Your task to perform on an android device: Search for nike dri-fit shirts on Nike Image 0: 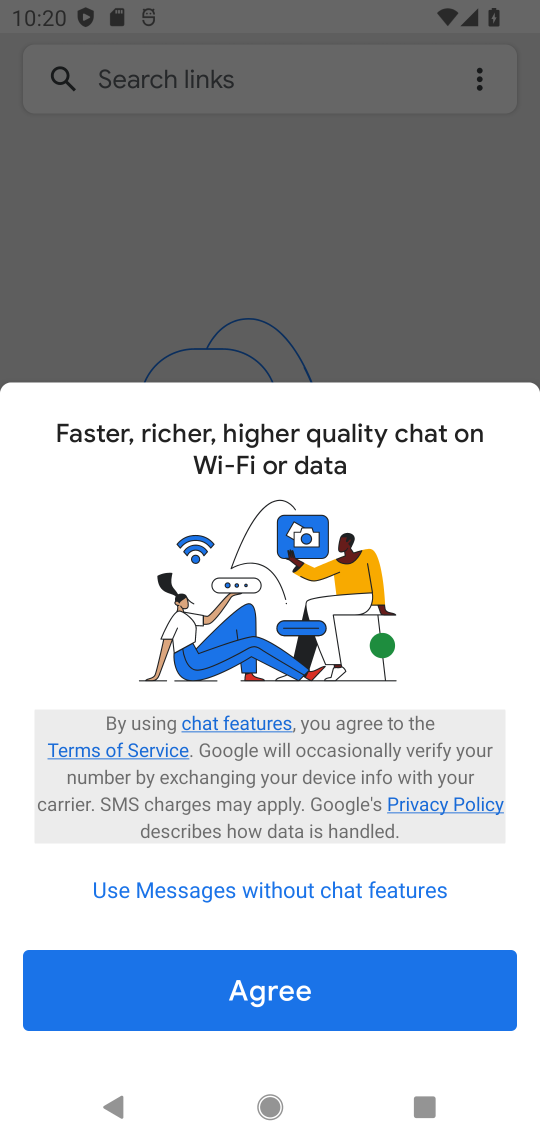
Step 0: press home button
Your task to perform on an android device: Search for nike dri-fit shirts on Nike Image 1: 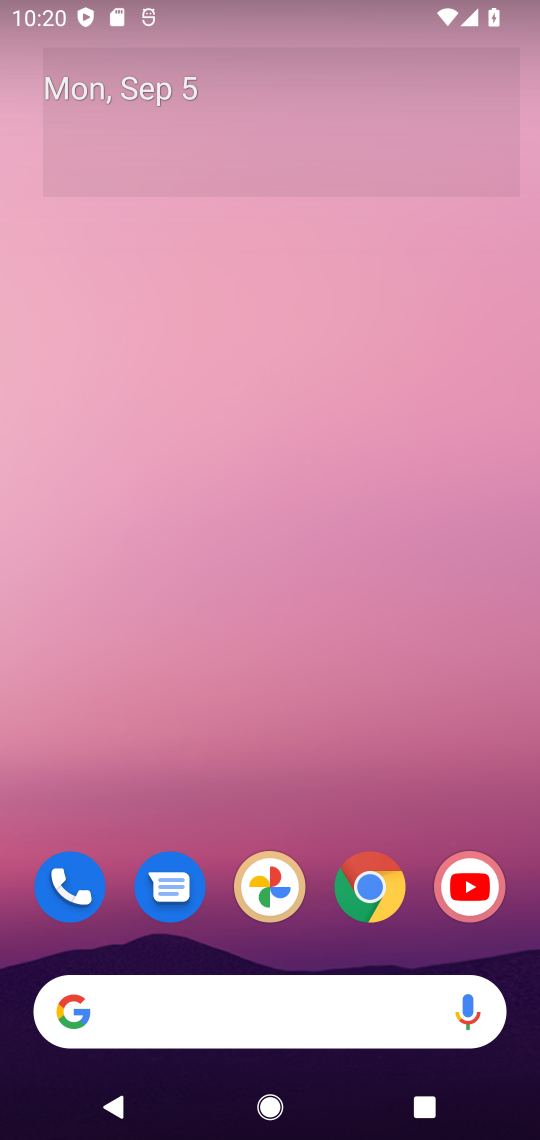
Step 1: click (381, 883)
Your task to perform on an android device: Search for nike dri-fit shirts on Nike Image 2: 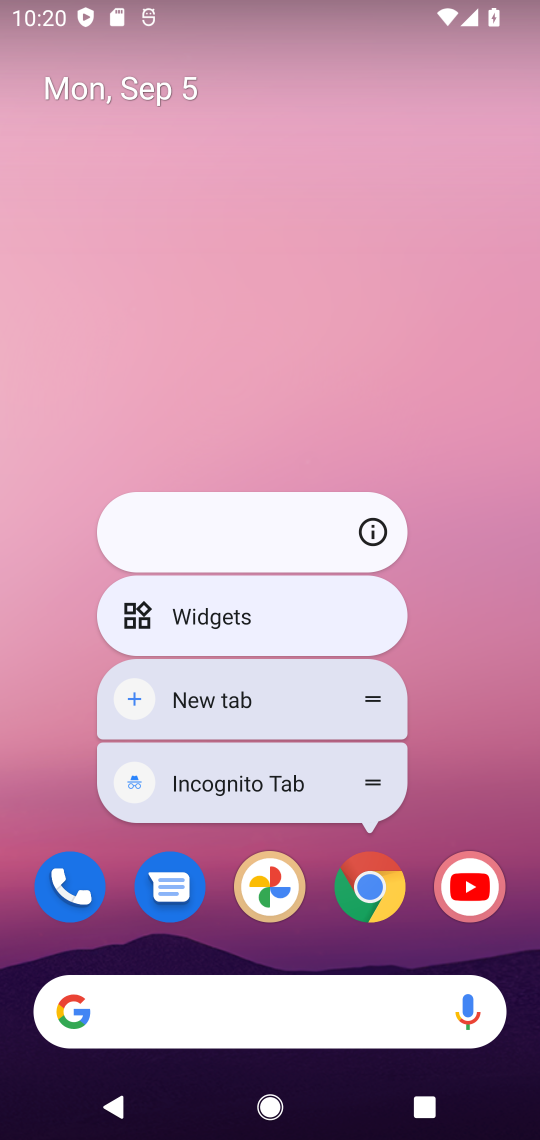
Step 2: click (381, 884)
Your task to perform on an android device: Search for nike dri-fit shirts on Nike Image 3: 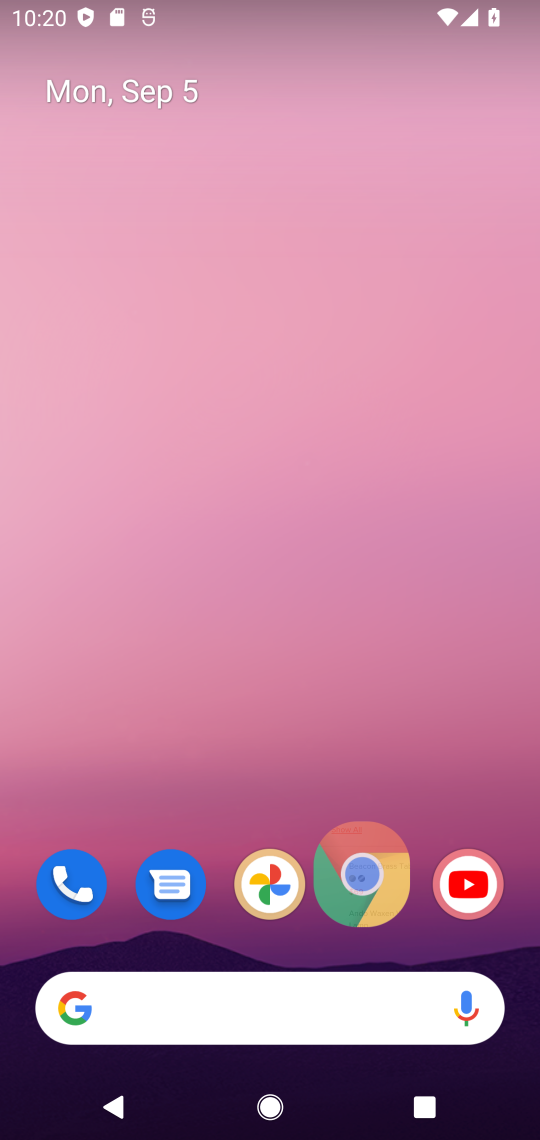
Step 3: click (381, 884)
Your task to perform on an android device: Search for nike dri-fit shirts on Nike Image 4: 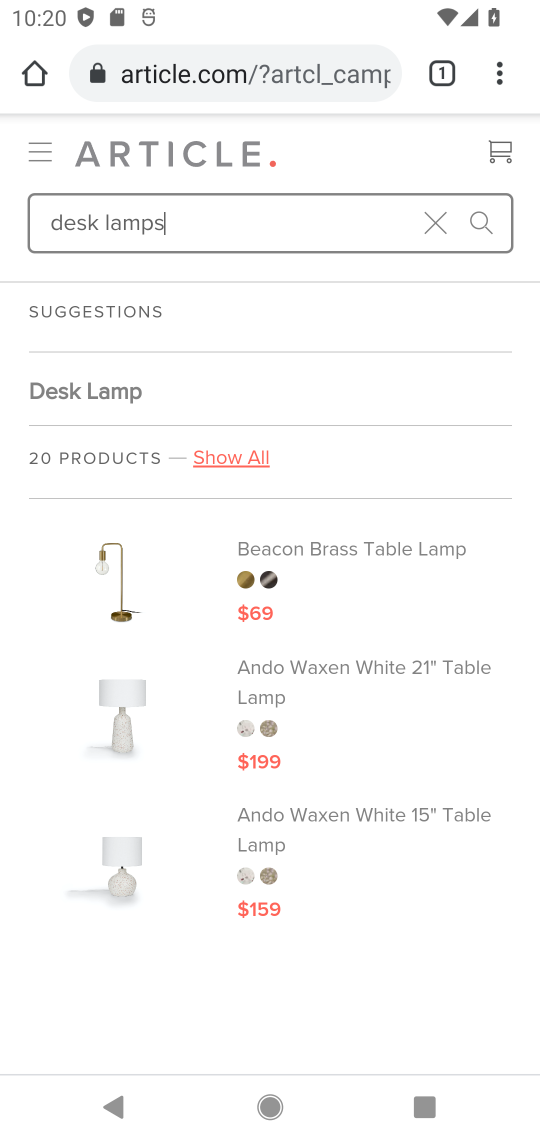
Step 4: click (187, 78)
Your task to perform on an android device: Search for nike dri-fit shirts on Nike Image 5: 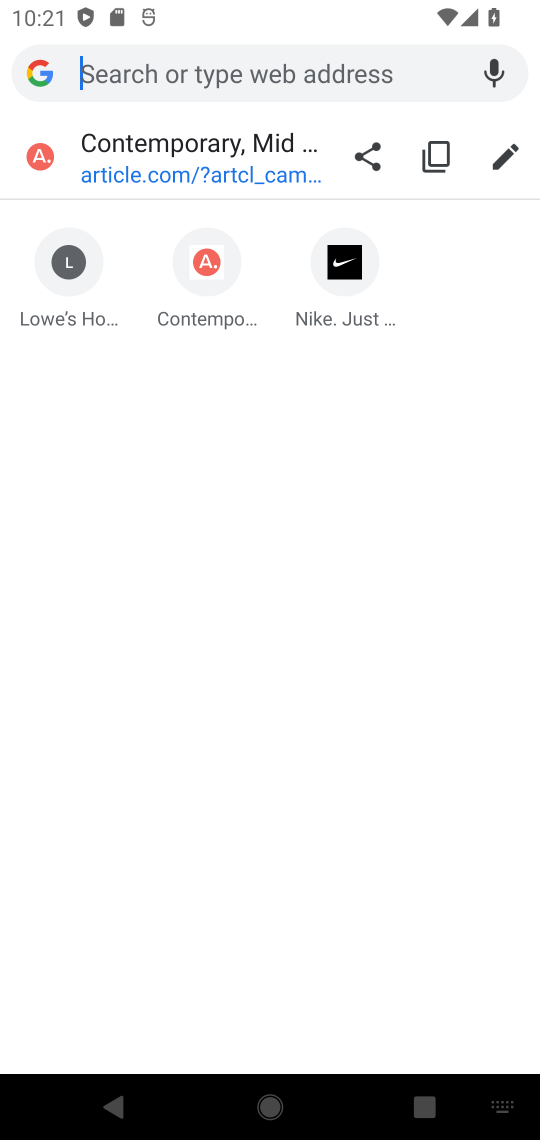
Step 5: type "Nike"
Your task to perform on an android device: Search for nike dri-fit shirts on Nike Image 6: 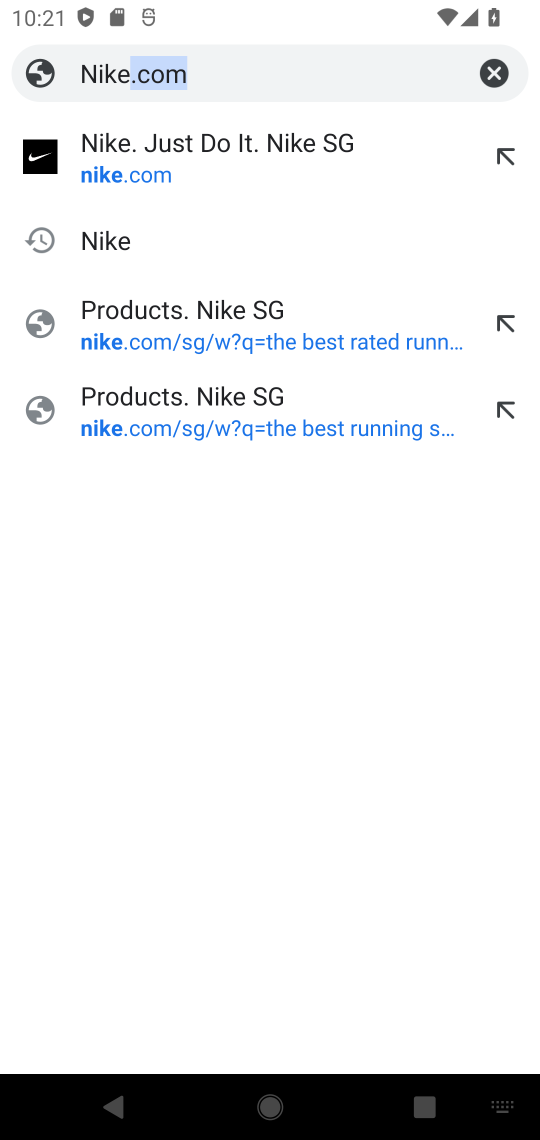
Step 6: click (161, 236)
Your task to perform on an android device: Search for nike dri-fit shirts on Nike Image 7: 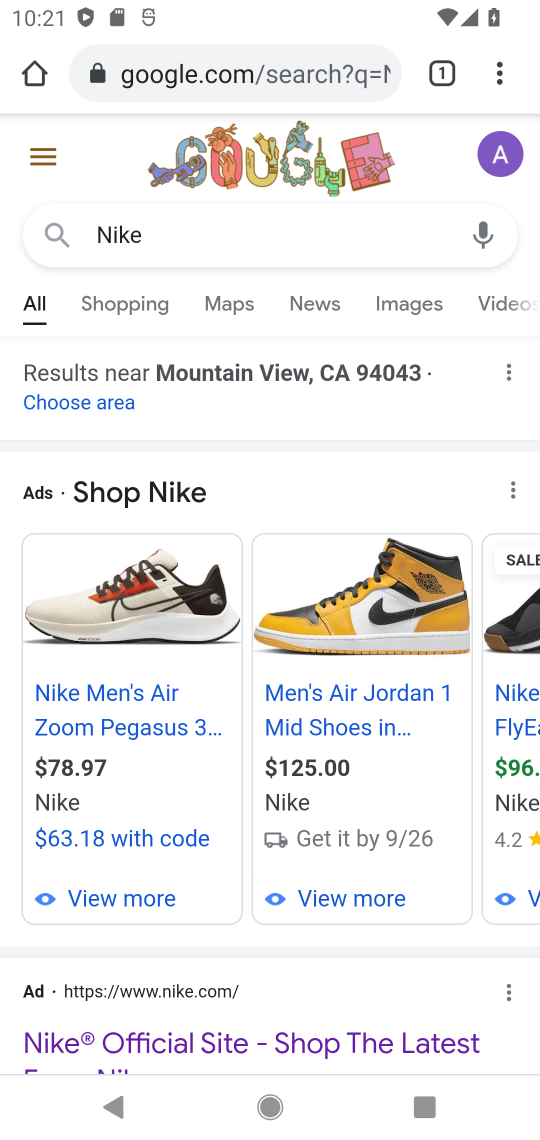
Step 7: drag from (212, 1010) to (186, 490)
Your task to perform on an android device: Search for nike dri-fit shirts on Nike Image 8: 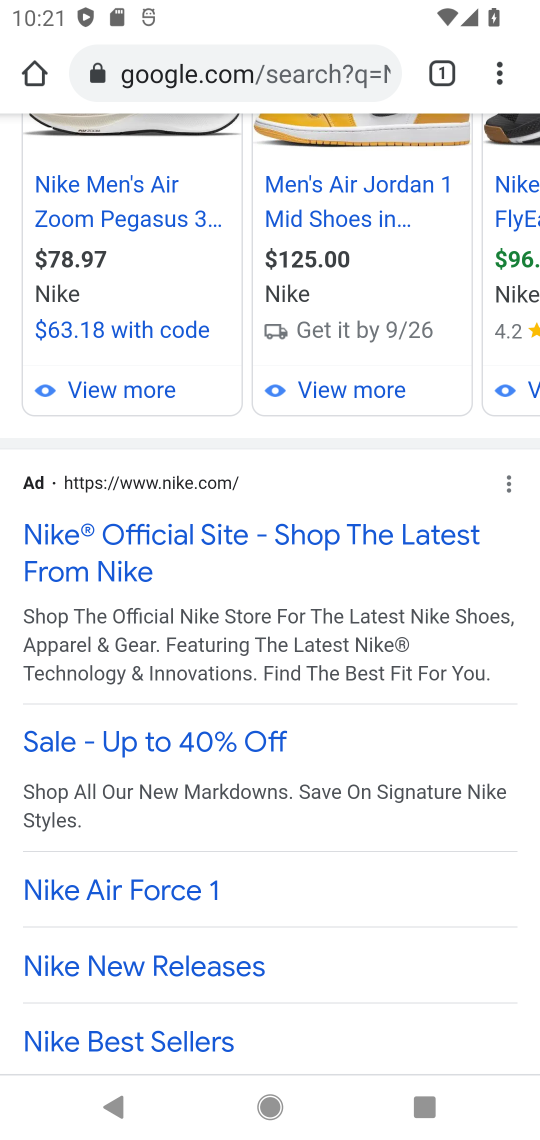
Step 8: click (176, 538)
Your task to perform on an android device: Search for nike dri-fit shirts on Nike Image 9: 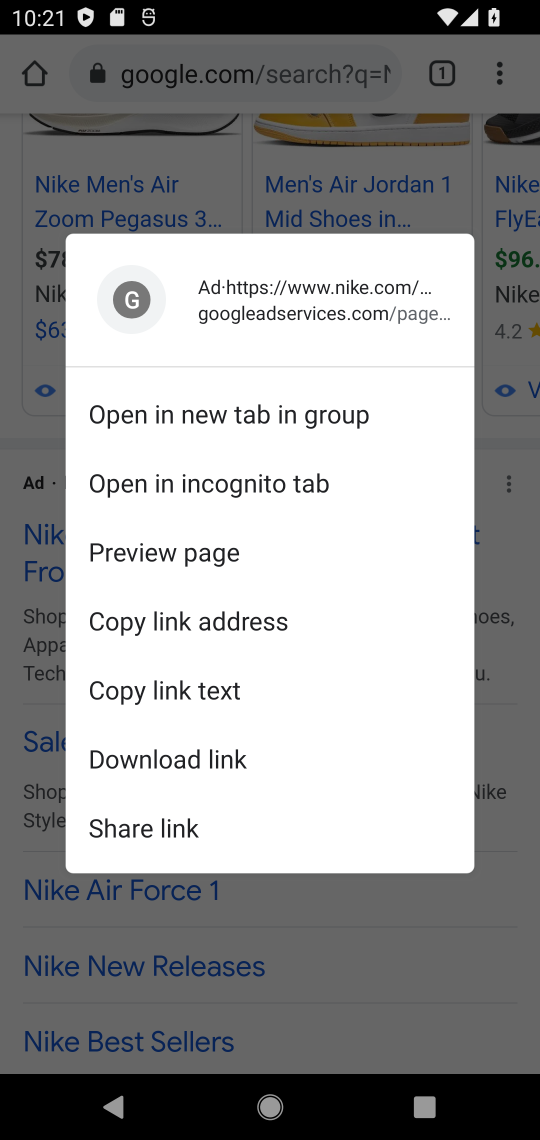
Step 9: click (33, 578)
Your task to perform on an android device: Search for nike dri-fit shirts on Nike Image 10: 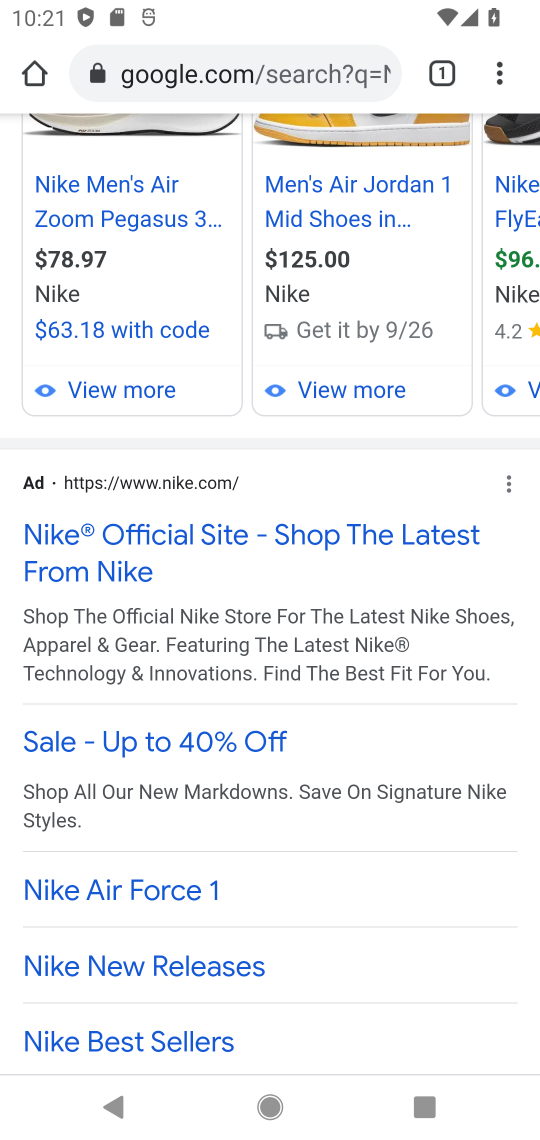
Step 10: click (76, 560)
Your task to perform on an android device: Search for nike dri-fit shirts on Nike Image 11: 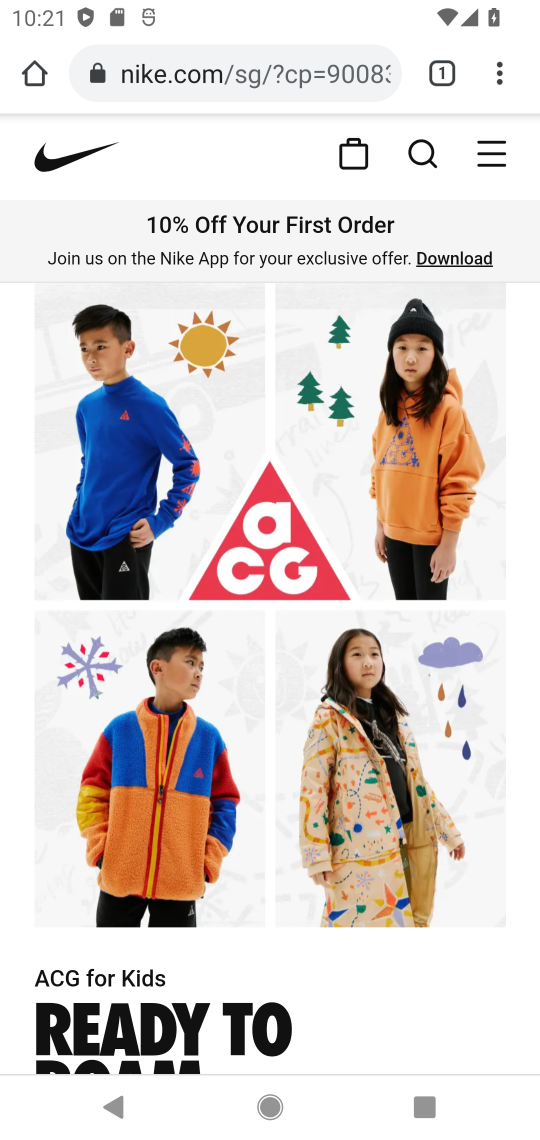
Step 11: click (415, 149)
Your task to perform on an android device: Search for nike dri-fit shirts on Nike Image 12: 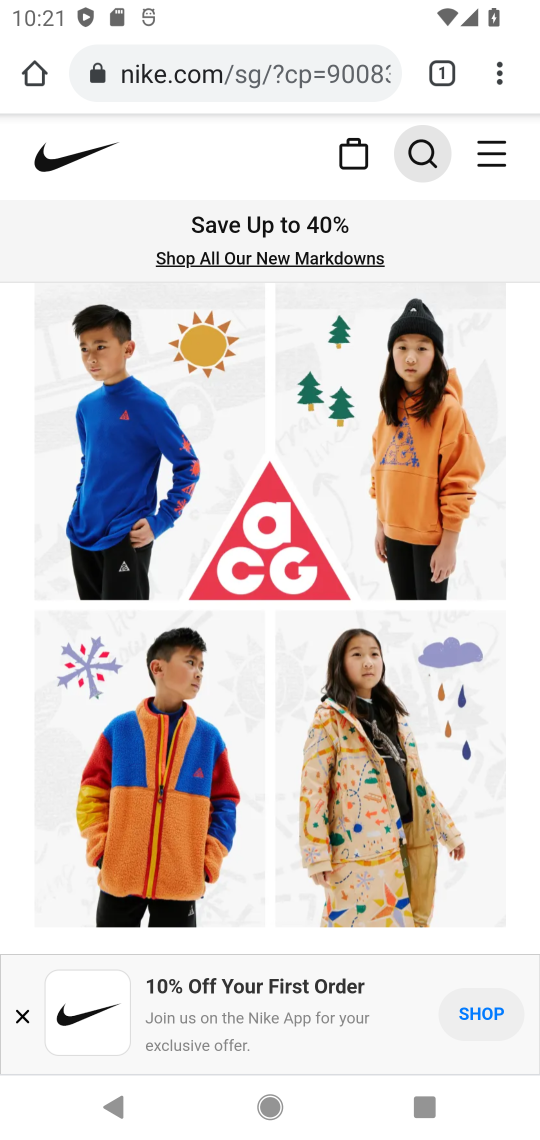
Step 12: click (431, 156)
Your task to perform on an android device: Search for nike dri-fit shirts on Nike Image 13: 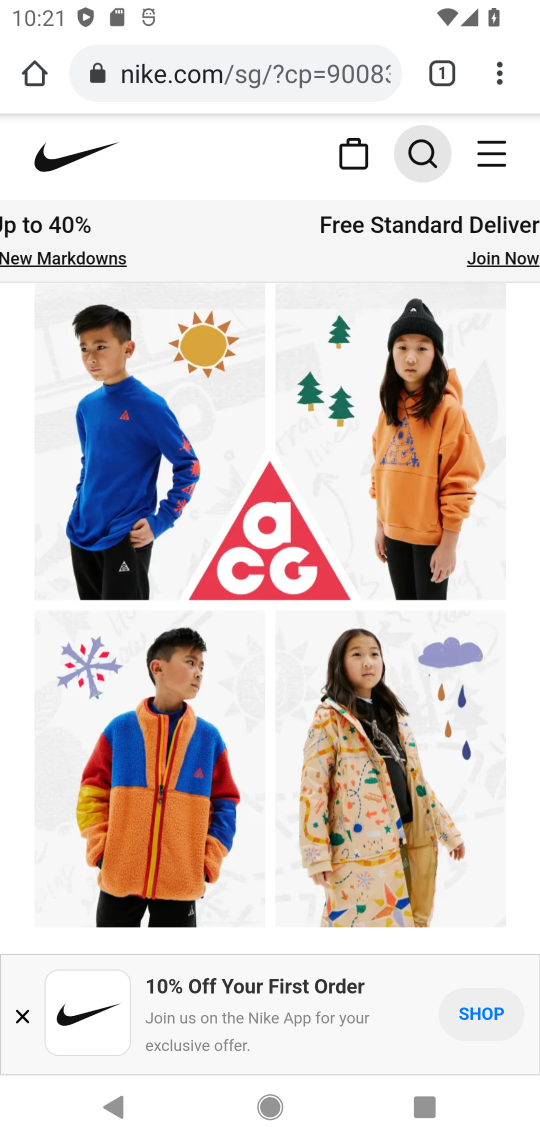
Step 13: click (431, 153)
Your task to perform on an android device: Search for nike dri-fit shirts on Nike Image 14: 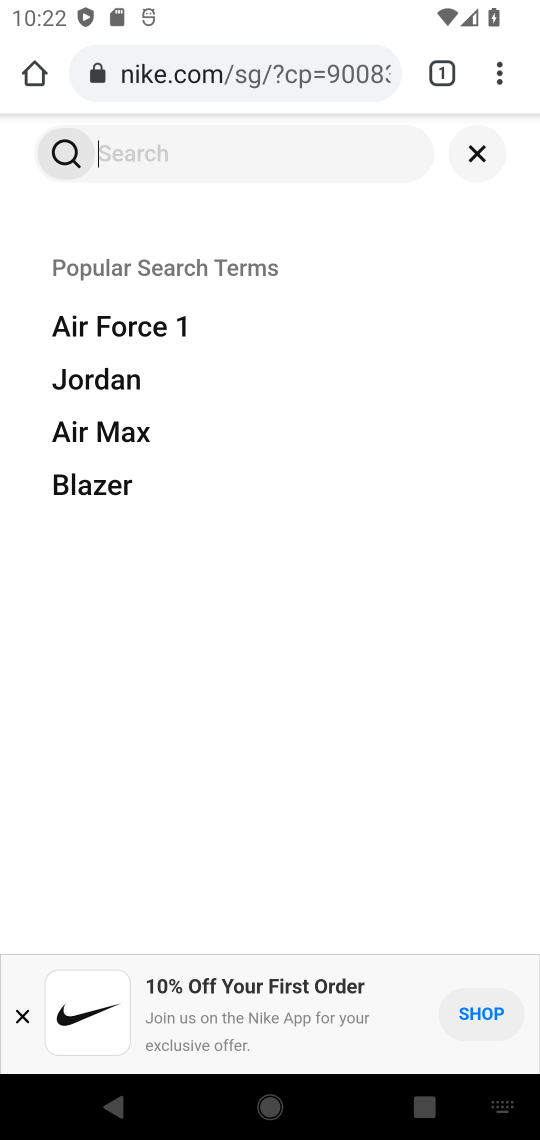
Step 14: type " nike dri-fit shirts"
Your task to perform on an android device: Search for nike dri-fit shirts on Nike Image 15: 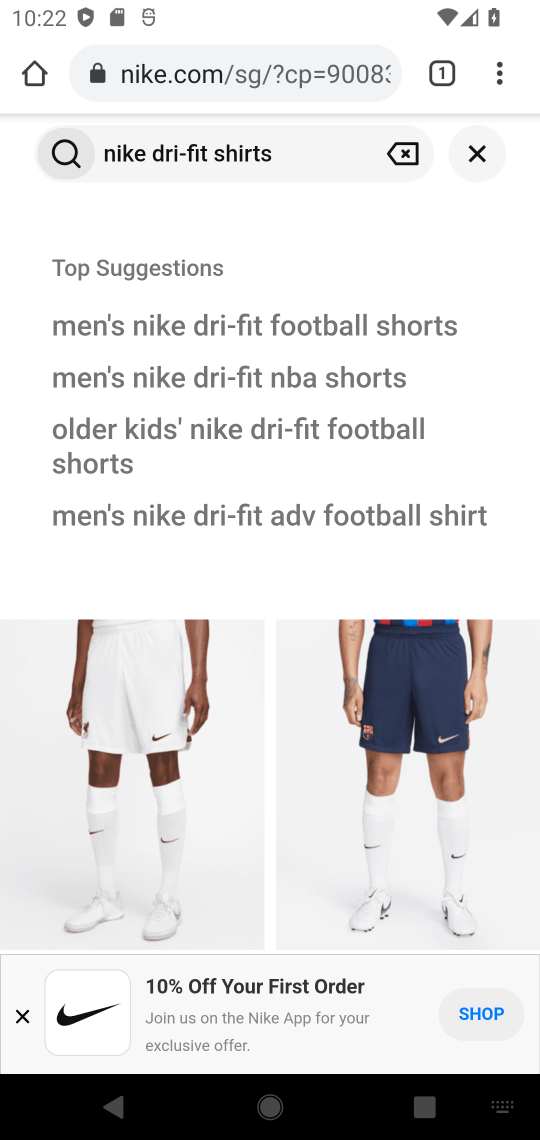
Step 15: click (58, 153)
Your task to perform on an android device: Search for nike dri-fit shirts on Nike Image 16: 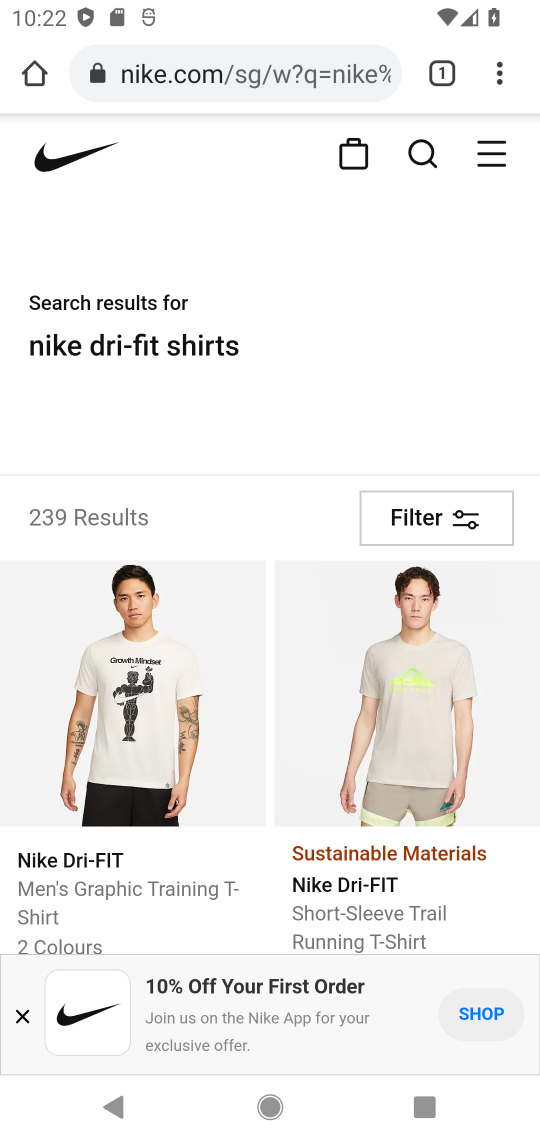
Step 16: task complete